Your task to perform on an android device: Open internet settings Image 0: 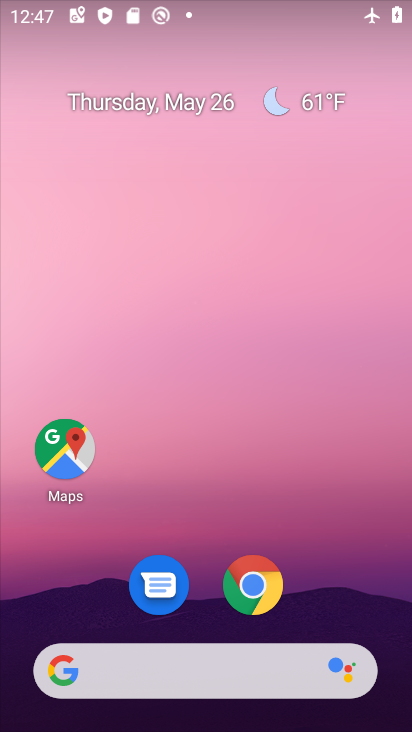
Step 0: drag from (210, 484) to (223, 22)
Your task to perform on an android device: Open internet settings Image 1: 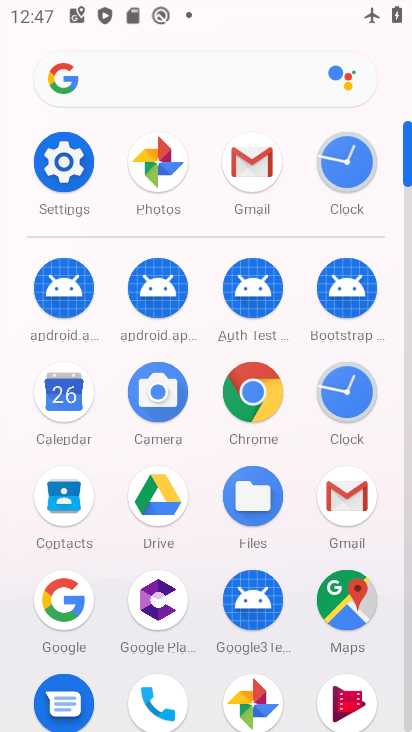
Step 1: click (61, 165)
Your task to perform on an android device: Open internet settings Image 2: 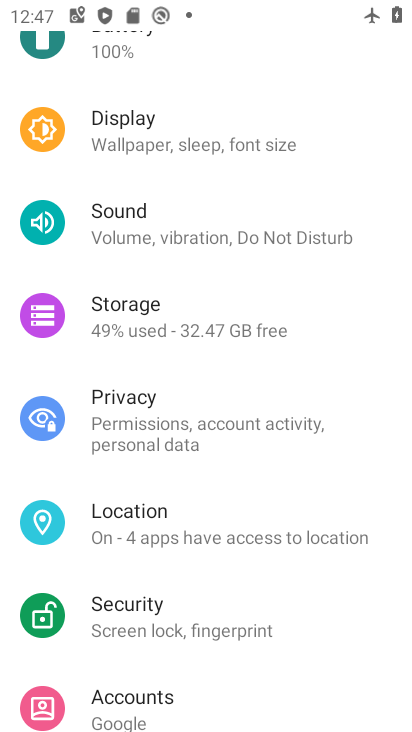
Step 2: drag from (201, 225) to (292, 676)
Your task to perform on an android device: Open internet settings Image 3: 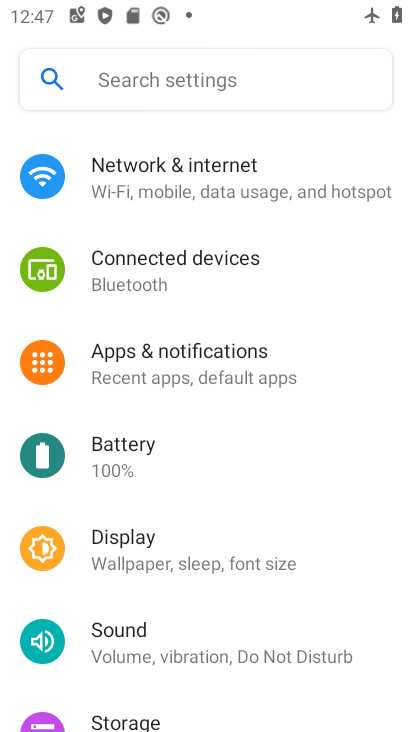
Step 3: click (219, 185)
Your task to perform on an android device: Open internet settings Image 4: 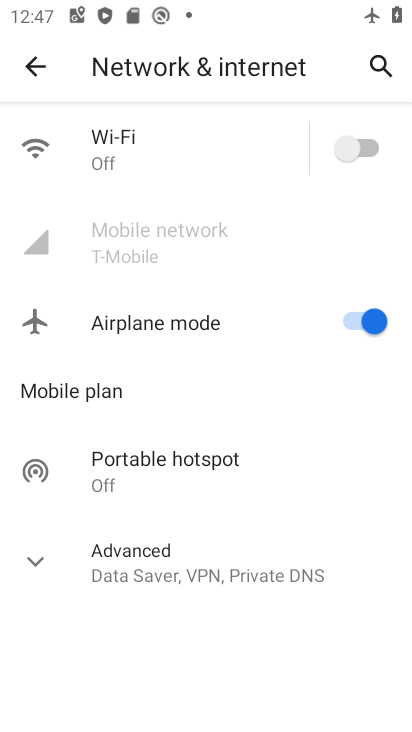
Step 4: task complete